Your task to perform on an android device: Open display settings Image 0: 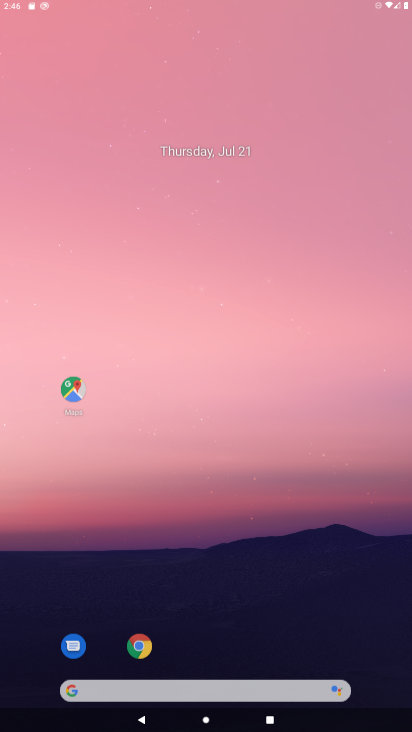
Step 0: drag from (249, 616) to (173, 0)
Your task to perform on an android device: Open display settings Image 1: 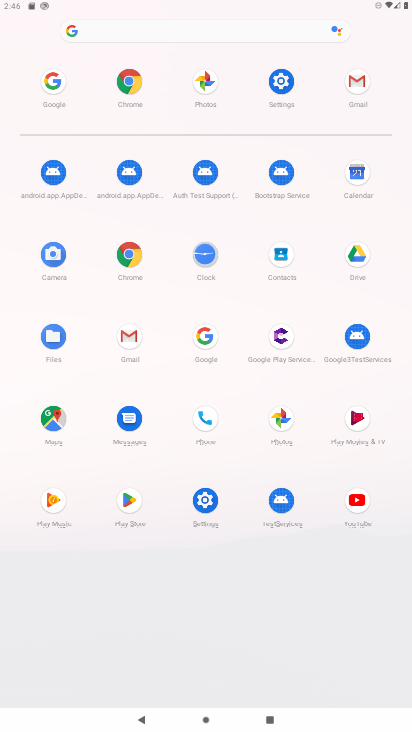
Step 1: click (295, 86)
Your task to perform on an android device: Open display settings Image 2: 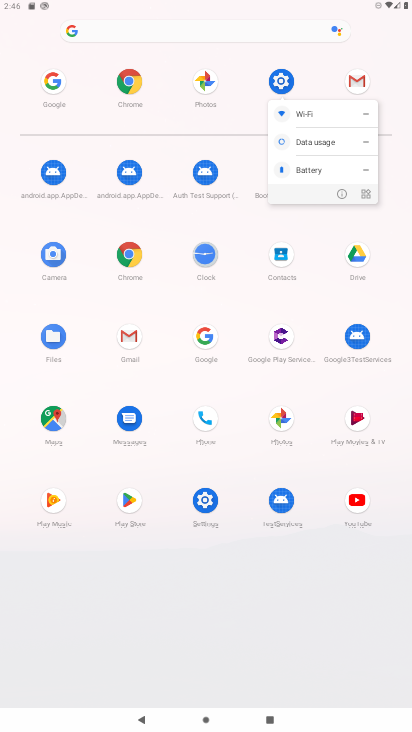
Step 2: click (263, 76)
Your task to perform on an android device: Open display settings Image 3: 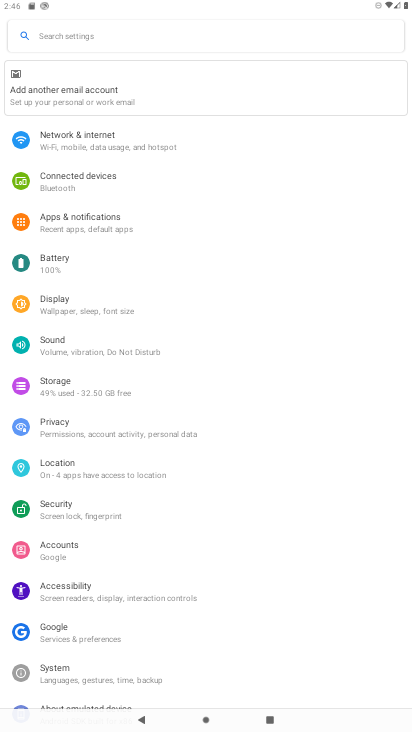
Step 3: click (73, 308)
Your task to perform on an android device: Open display settings Image 4: 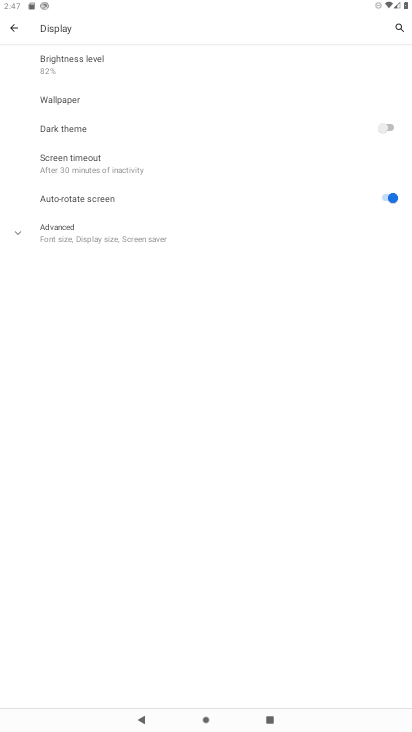
Step 4: task complete